Your task to perform on an android device: open chrome privacy settings Image 0: 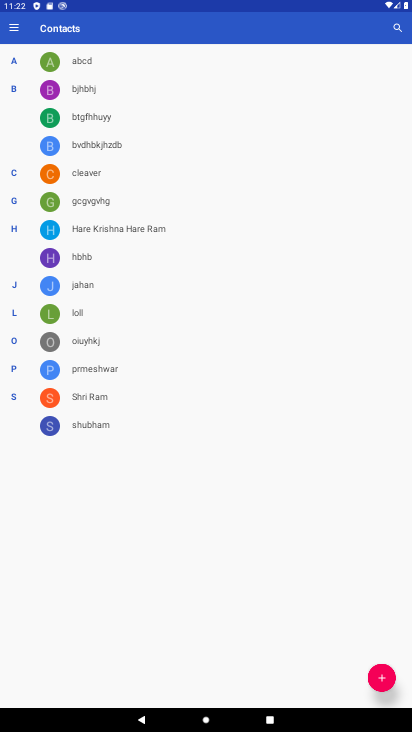
Step 0: press home button
Your task to perform on an android device: open chrome privacy settings Image 1: 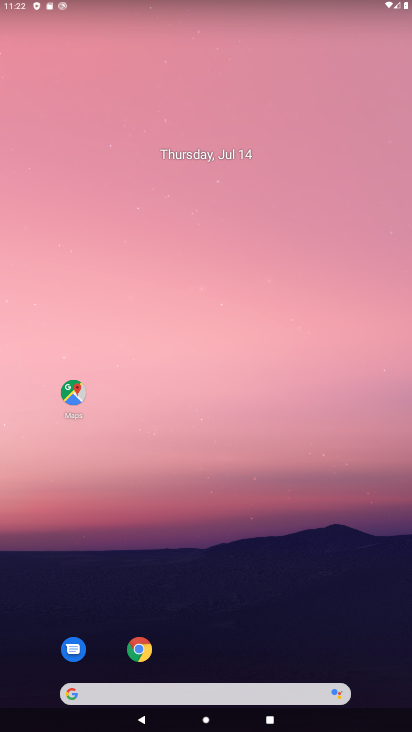
Step 1: click (137, 660)
Your task to perform on an android device: open chrome privacy settings Image 2: 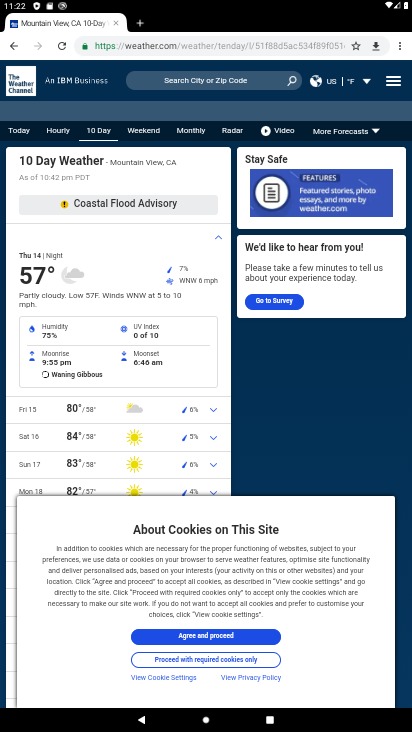
Step 2: click (397, 45)
Your task to perform on an android device: open chrome privacy settings Image 3: 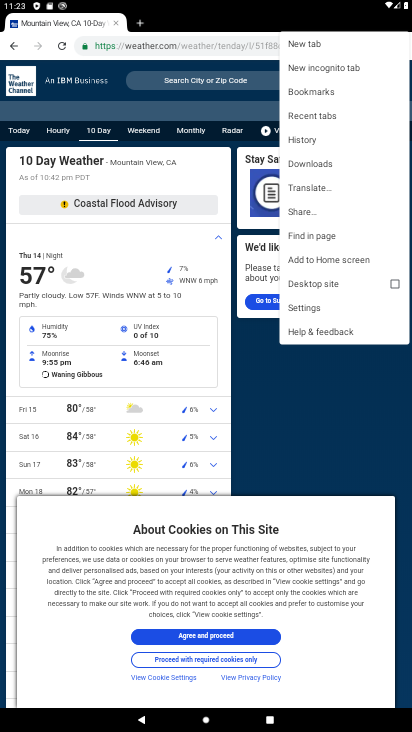
Step 3: click (306, 305)
Your task to perform on an android device: open chrome privacy settings Image 4: 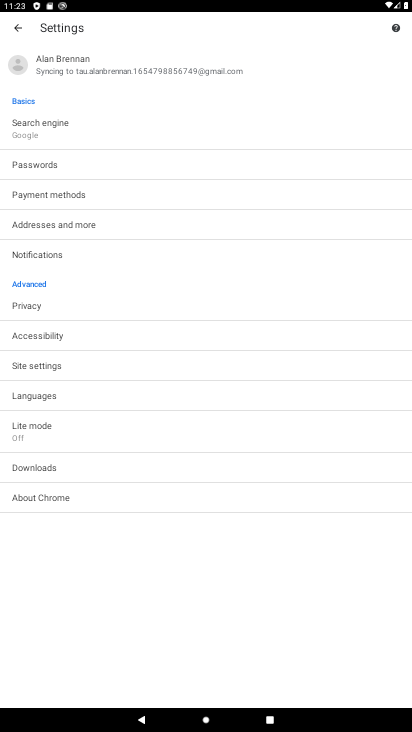
Step 4: click (29, 304)
Your task to perform on an android device: open chrome privacy settings Image 5: 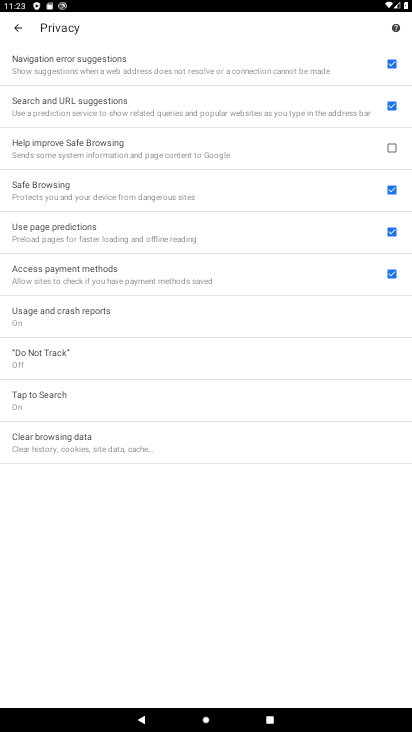
Step 5: task complete